Your task to perform on an android device: Is it going to rain this weekend? Image 0: 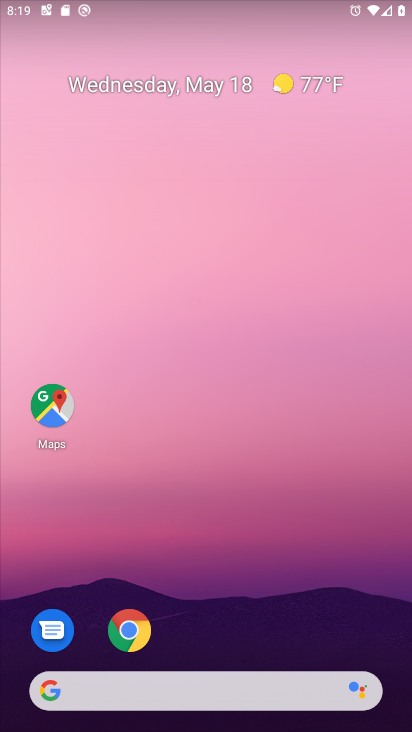
Step 0: drag from (267, 617) to (266, 124)
Your task to perform on an android device: Is it going to rain this weekend? Image 1: 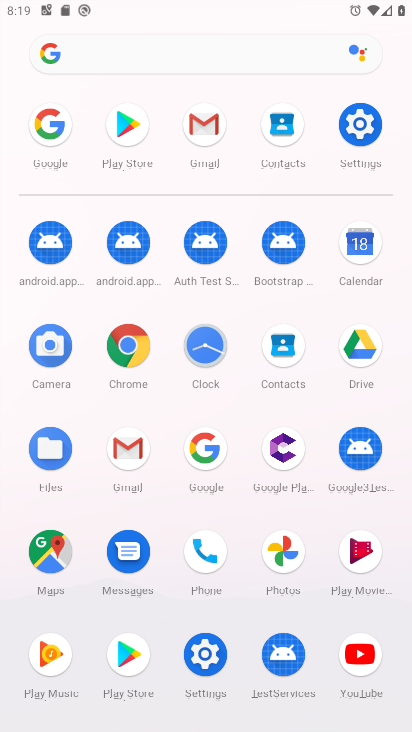
Step 1: click (213, 460)
Your task to perform on an android device: Is it going to rain this weekend? Image 2: 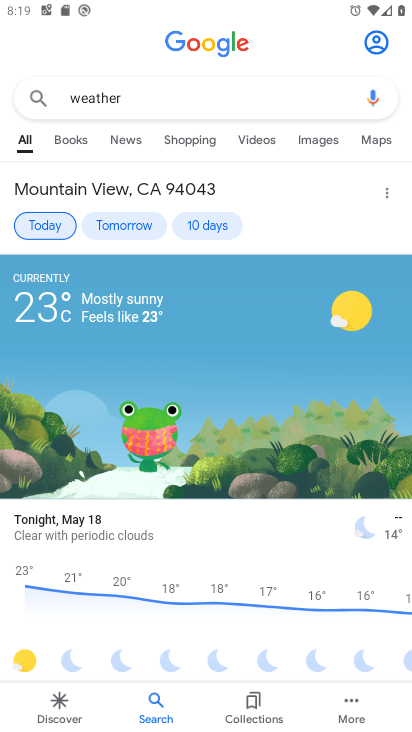
Step 2: click (131, 91)
Your task to perform on an android device: Is it going to rain this weekend? Image 3: 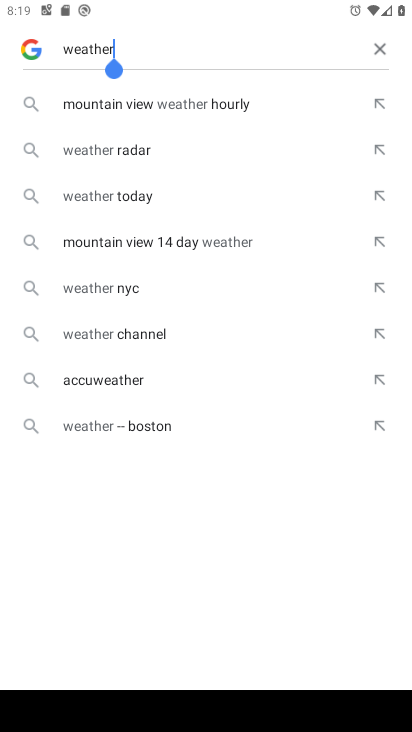
Step 3: click (376, 56)
Your task to perform on an android device: Is it going to rain this weekend? Image 4: 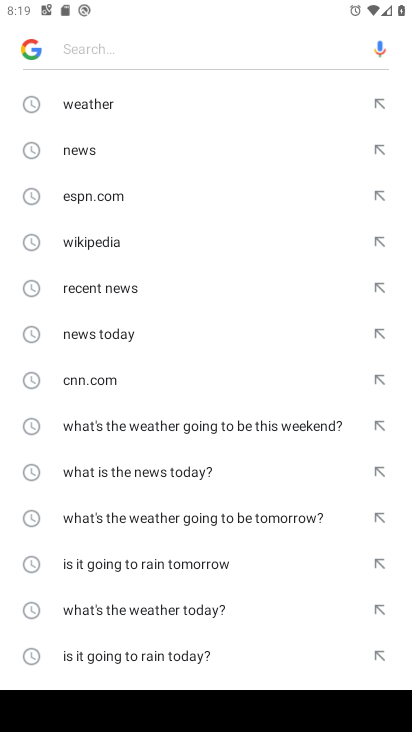
Step 4: drag from (217, 639) to (255, 286)
Your task to perform on an android device: Is it going to rain this weekend? Image 5: 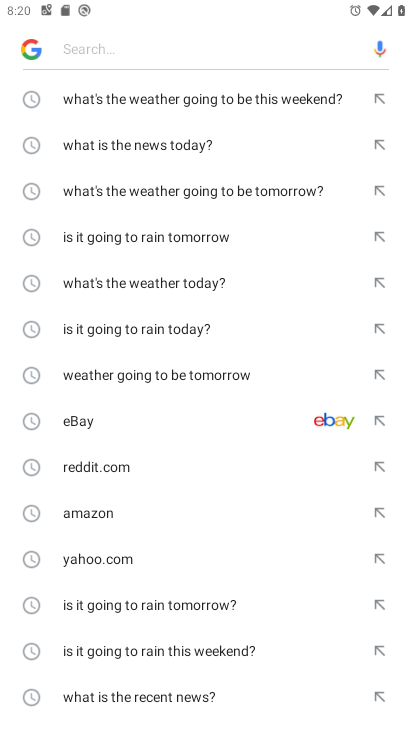
Step 5: click (213, 653)
Your task to perform on an android device: Is it going to rain this weekend? Image 6: 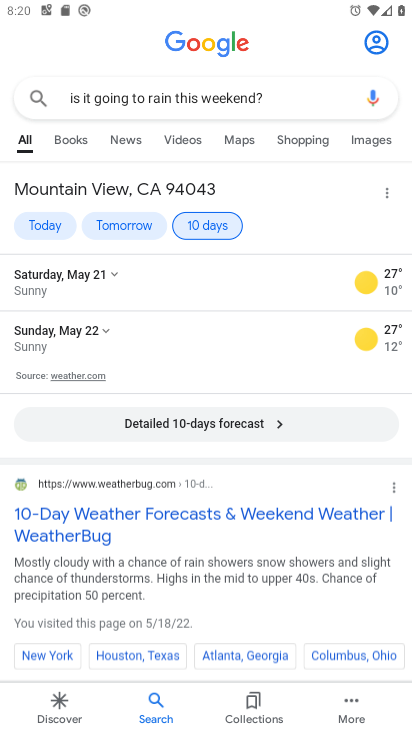
Step 6: task complete